Your task to perform on an android device: set an alarm Image 0: 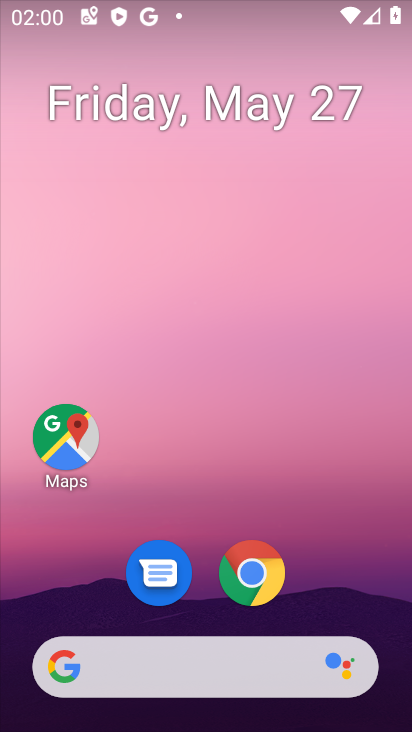
Step 0: drag from (163, 607) to (125, 89)
Your task to perform on an android device: set an alarm Image 1: 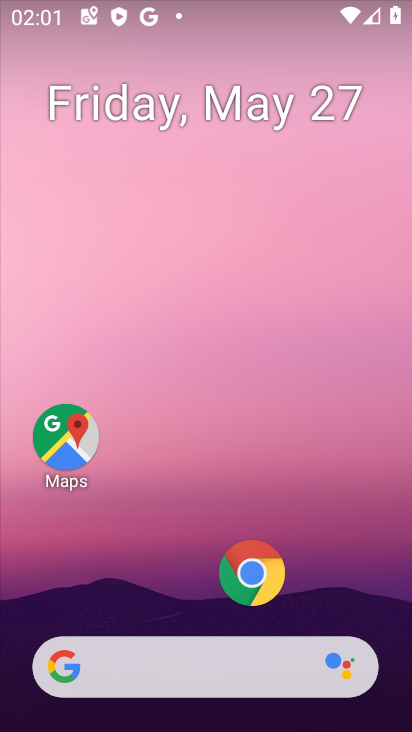
Step 1: drag from (153, 610) to (138, 53)
Your task to perform on an android device: set an alarm Image 2: 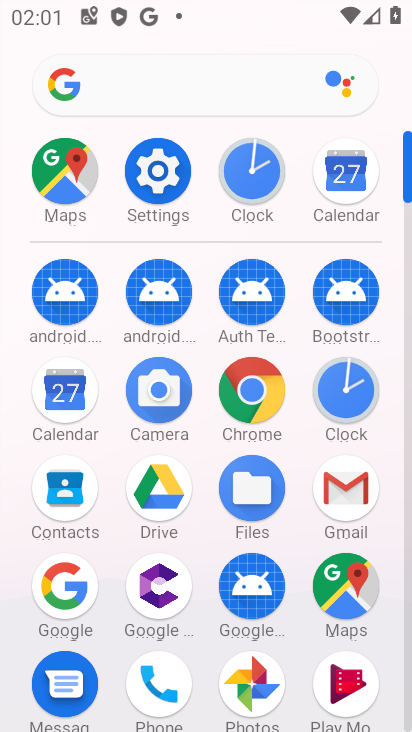
Step 2: click (319, 400)
Your task to perform on an android device: set an alarm Image 3: 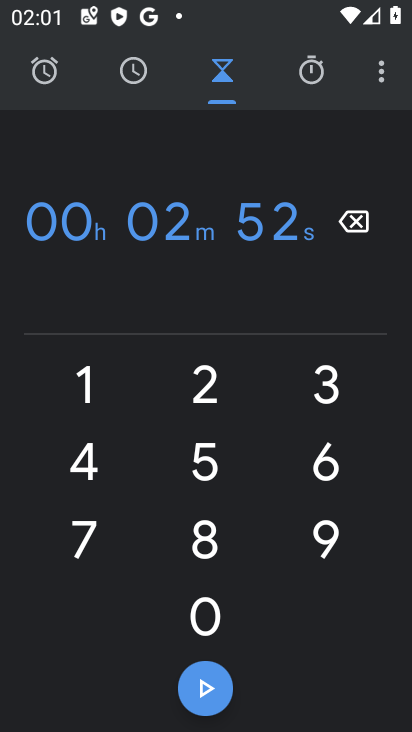
Step 3: click (37, 75)
Your task to perform on an android device: set an alarm Image 4: 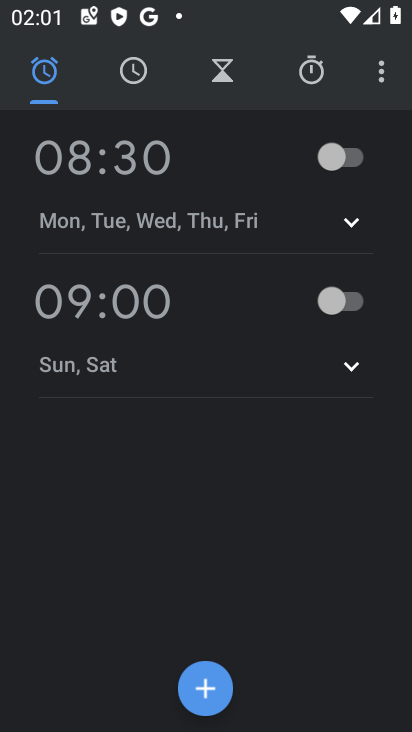
Step 4: task complete